Your task to perform on an android device: Go to Amazon Image 0: 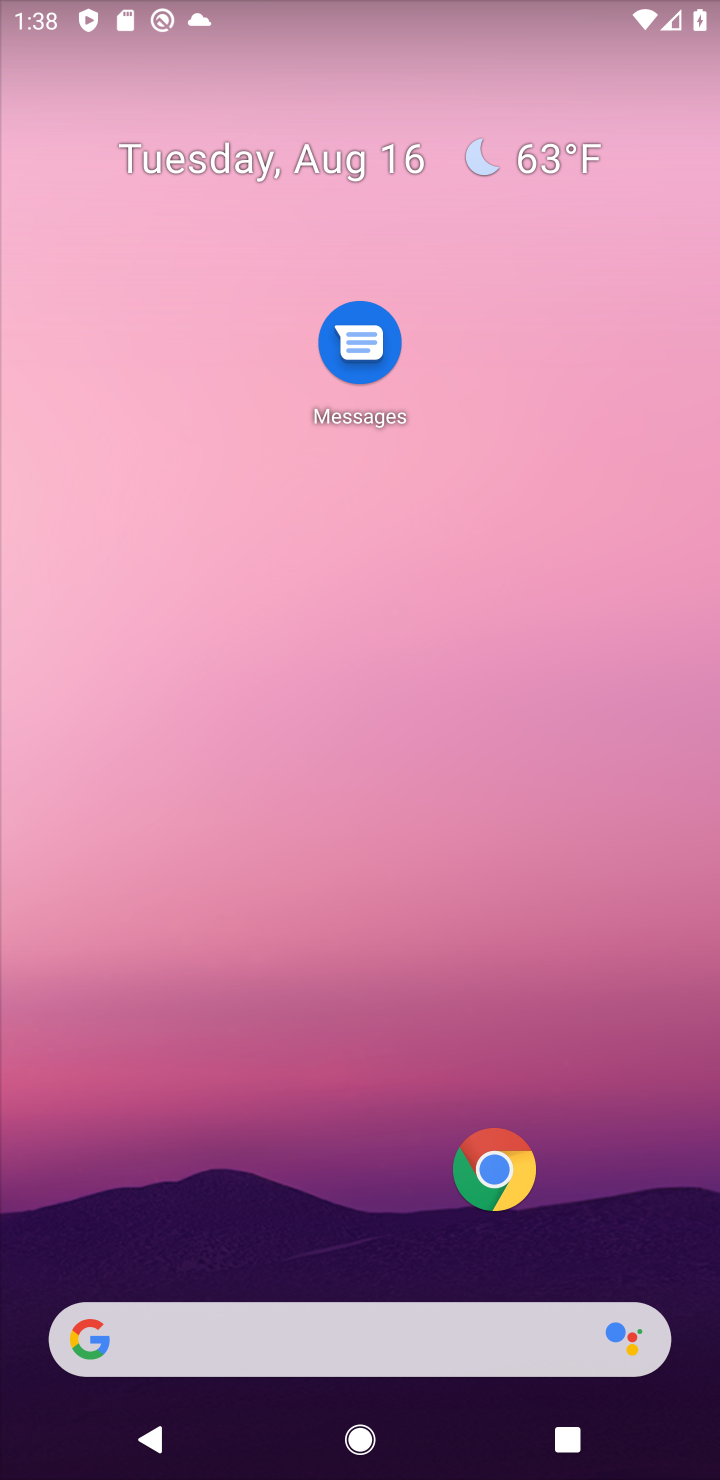
Step 0: click (305, 1326)
Your task to perform on an android device: Go to Amazon Image 1: 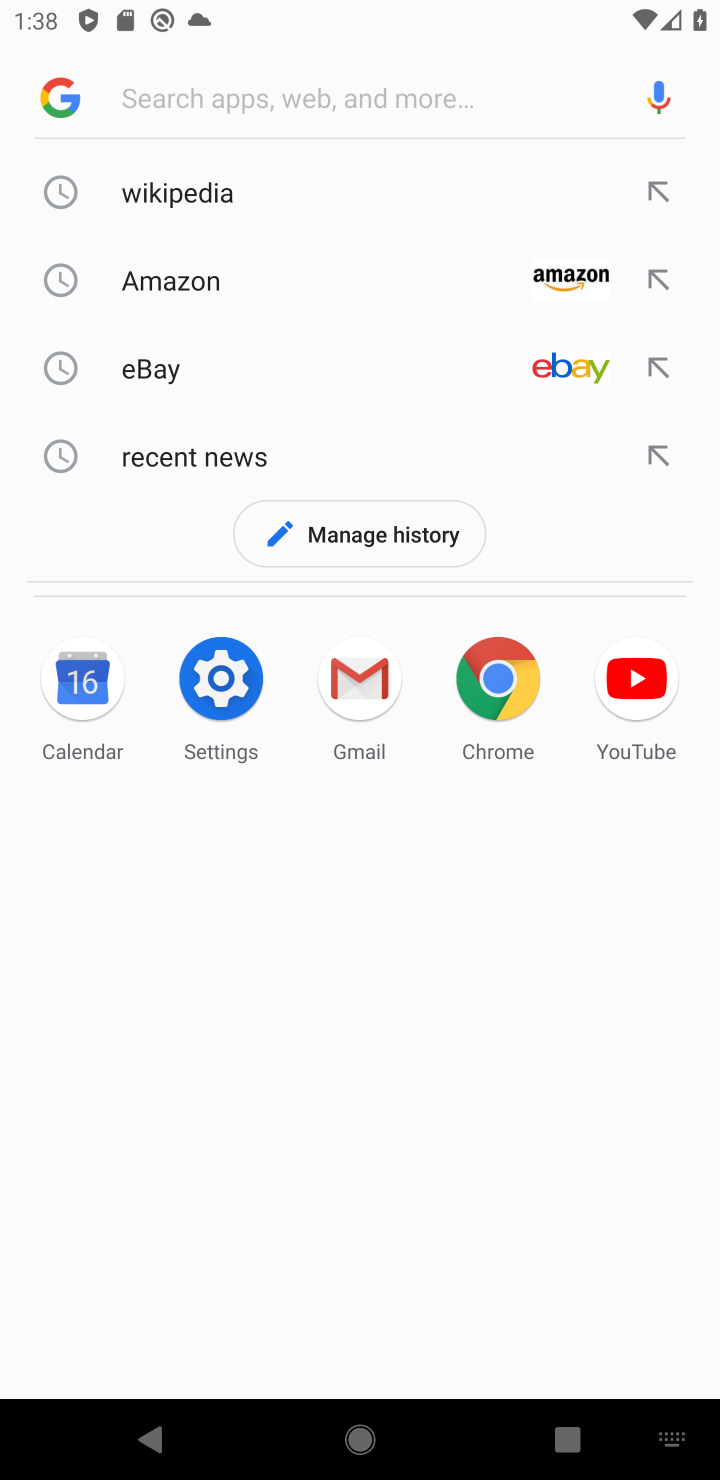
Step 1: type "Amazon"
Your task to perform on an android device: Go to Amazon Image 2: 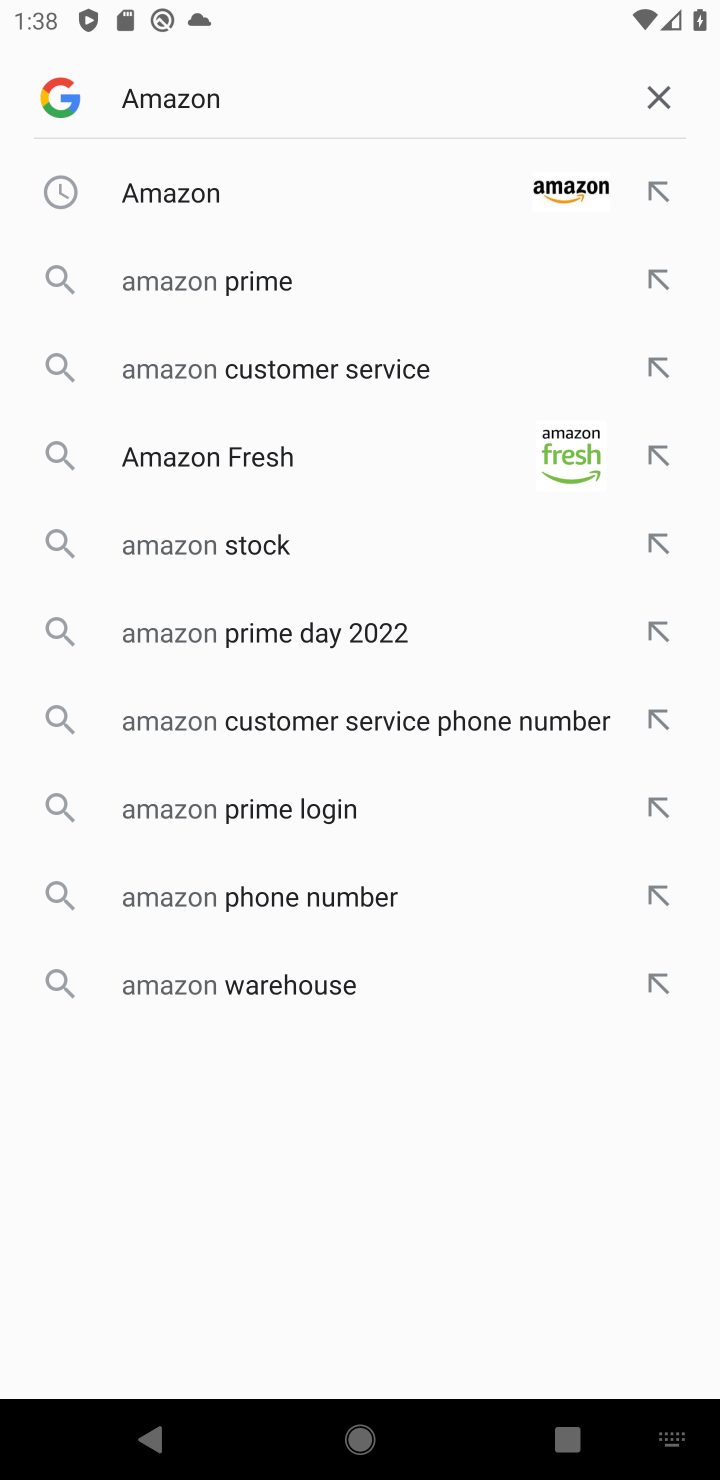
Step 2: click (176, 182)
Your task to perform on an android device: Go to Amazon Image 3: 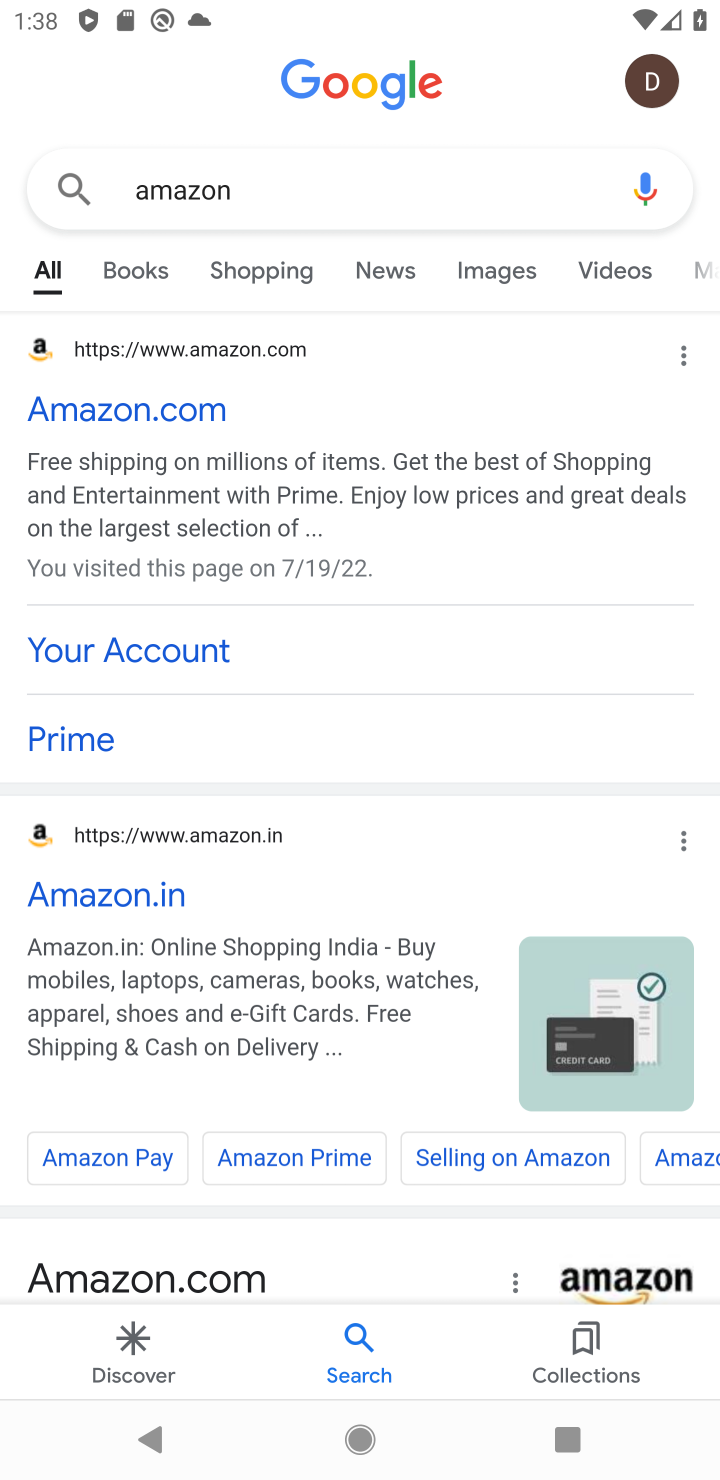
Step 3: task complete